Your task to perform on an android device: check out phone information Image 0: 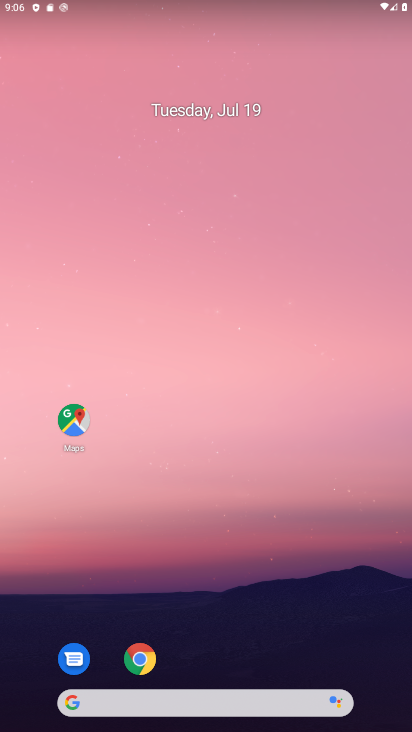
Step 0: drag from (246, 667) to (254, 186)
Your task to perform on an android device: check out phone information Image 1: 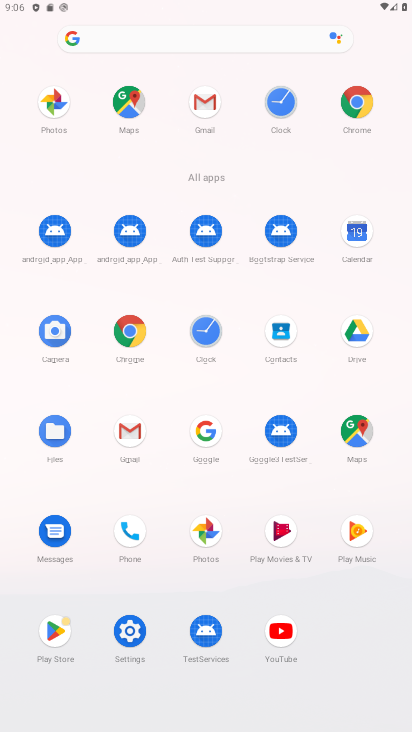
Step 1: click (135, 629)
Your task to perform on an android device: check out phone information Image 2: 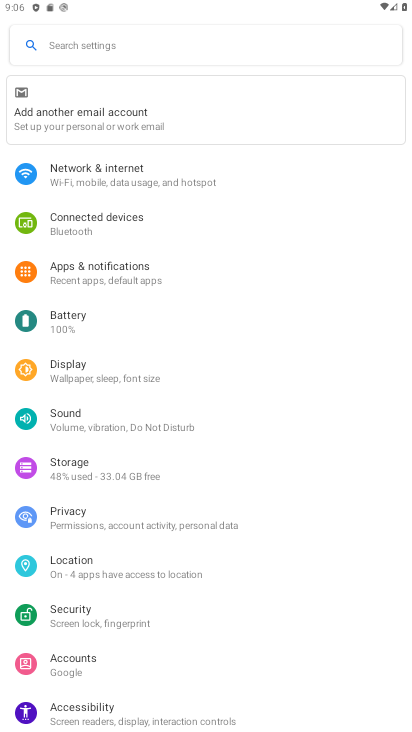
Step 2: drag from (172, 698) to (268, 250)
Your task to perform on an android device: check out phone information Image 3: 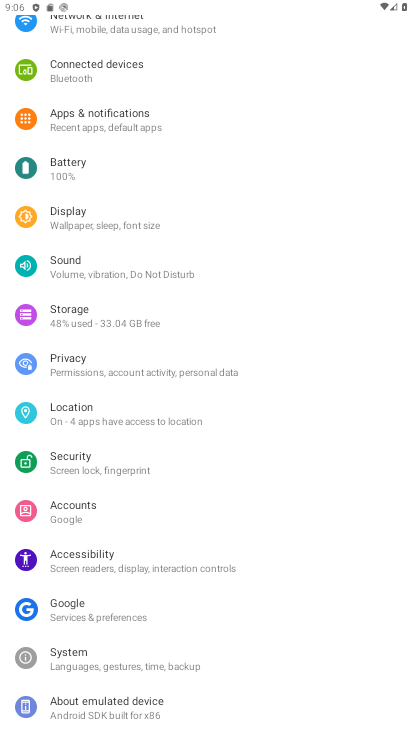
Step 3: click (142, 694)
Your task to perform on an android device: check out phone information Image 4: 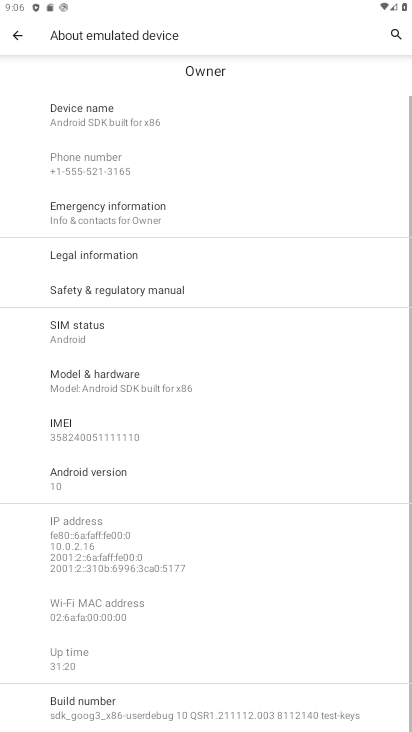
Step 4: task complete